Your task to perform on an android device: check android version Image 0: 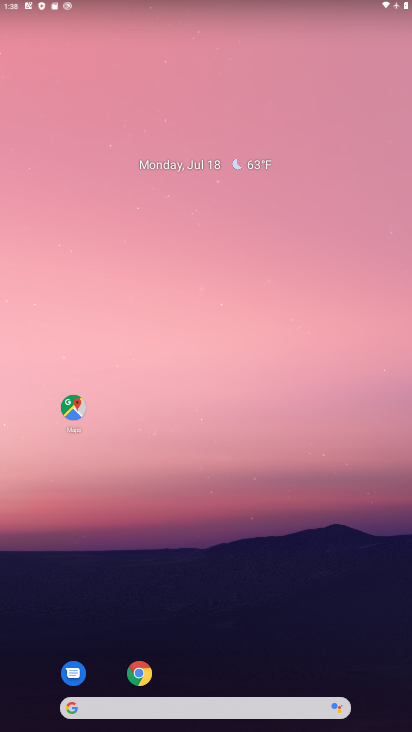
Step 0: drag from (230, 677) to (229, 383)
Your task to perform on an android device: check android version Image 1: 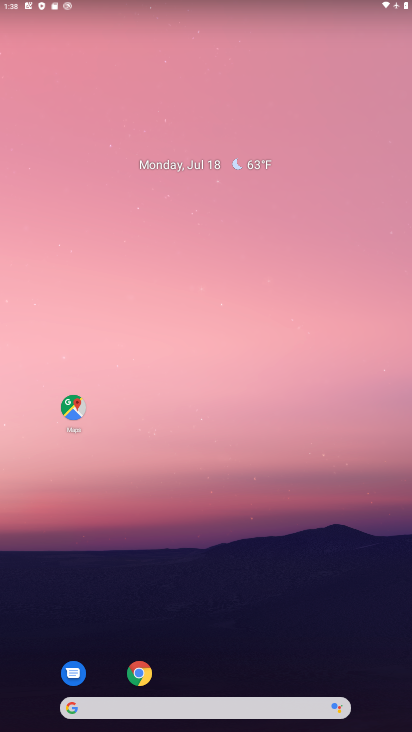
Step 1: drag from (229, 689) to (220, 215)
Your task to perform on an android device: check android version Image 2: 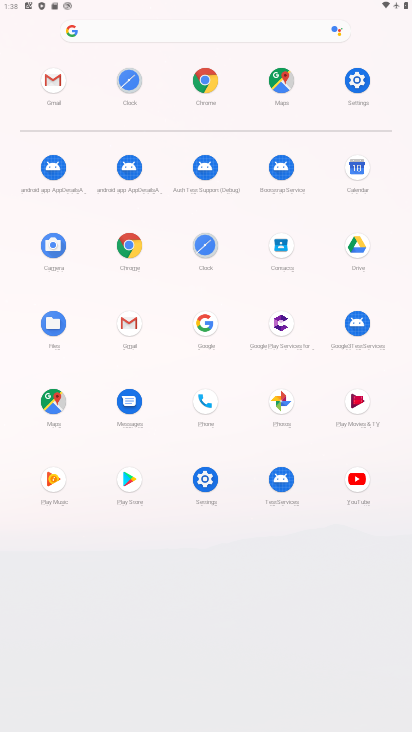
Step 2: click (362, 87)
Your task to perform on an android device: check android version Image 3: 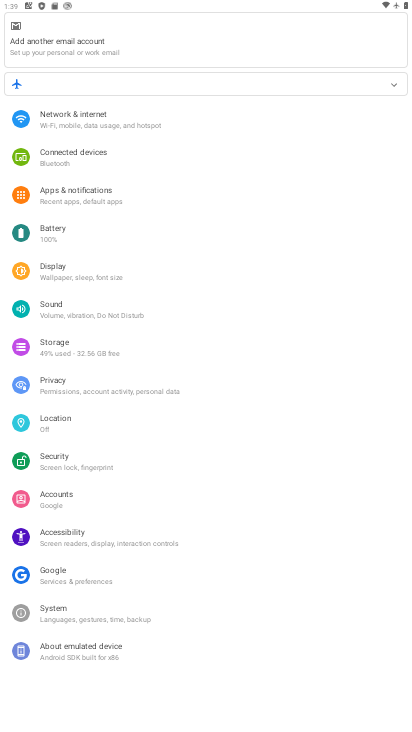
Step 3: click (70, 649)
Your task to perform on an android device: check android version Image 4: 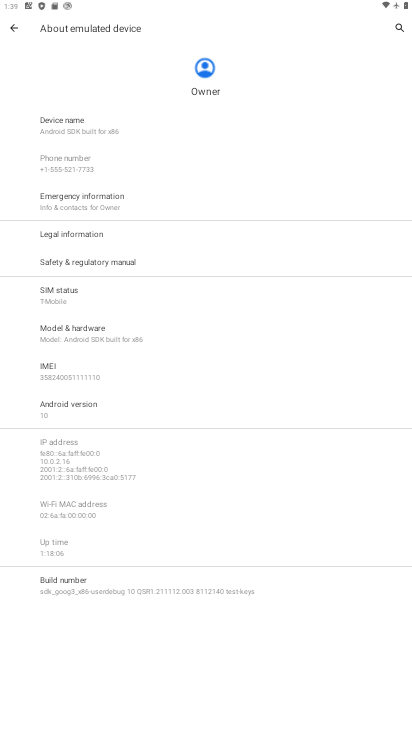
Step 4: click (83, 416)
Your task to perform on an android device: check android version Image 5: 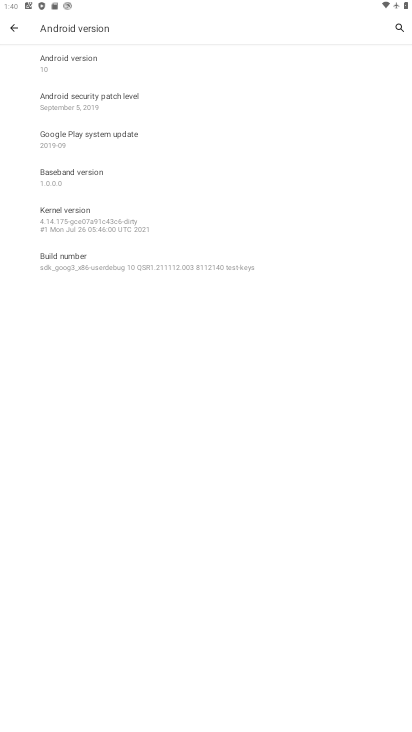
Step 5: task complete